Your task to perform on an android device: toggle improve location accuracy Image 0: 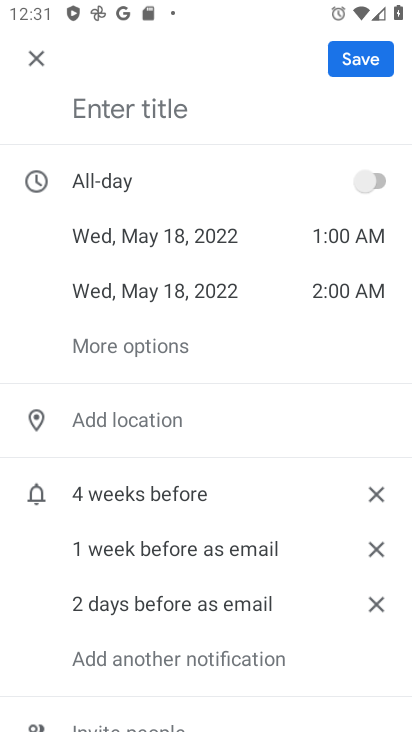
Step 0: press back button
Your task to perform on an android device: toggle improve location accuracy Image 1: 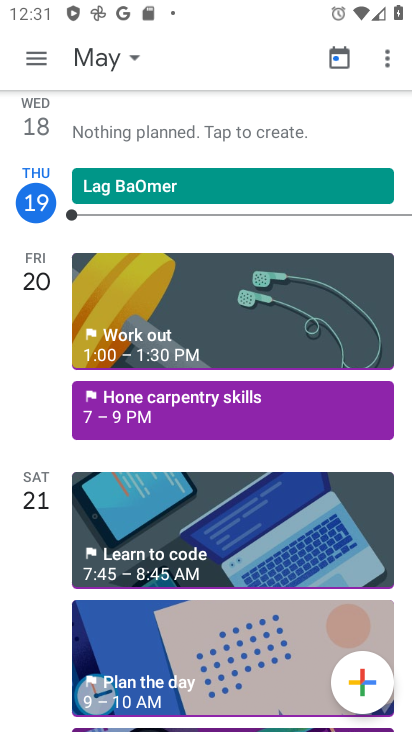
Step 1: press home button
Your task to perform on an android device: toggle improve location accuracy Image 2: 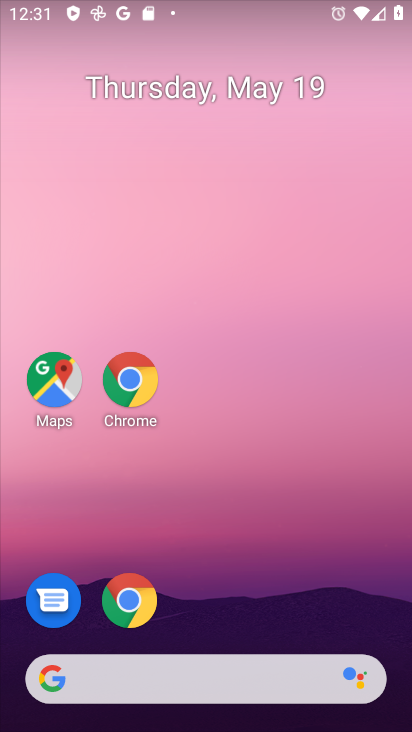
Step 2: drag from (264, 620) to (111, 29)
Your task to perform on an android device: toggle improve location accuracy Image 3: 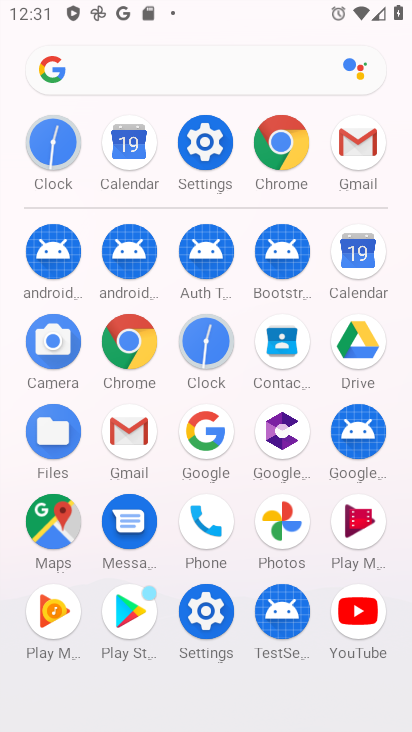
Step 3: click (195, 605)
Your task to perform on an android device: toggle improve location accuracy Image 4: 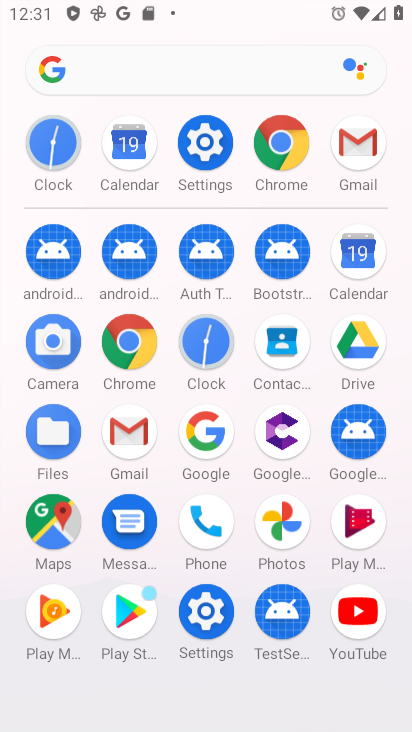
Step 4: click (217, 620)
Your task to perform on an android device: toggle improve location accuracy Image 5: 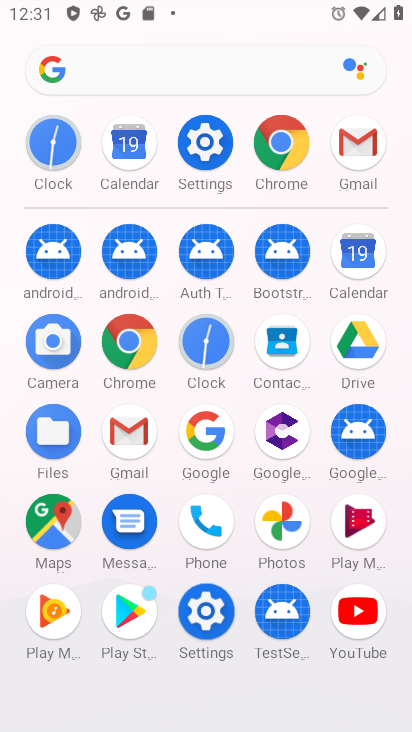
Step 5: click (217, 620)
Your task to perform on an android device: toggle improve location accuracy Image 6: 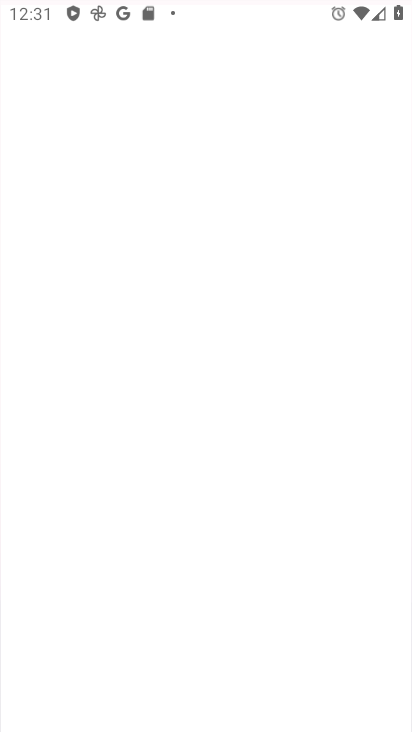
Step 6: click (217, 620)
Your task to perform on an android device: toggle improve location accuracy Image 7: 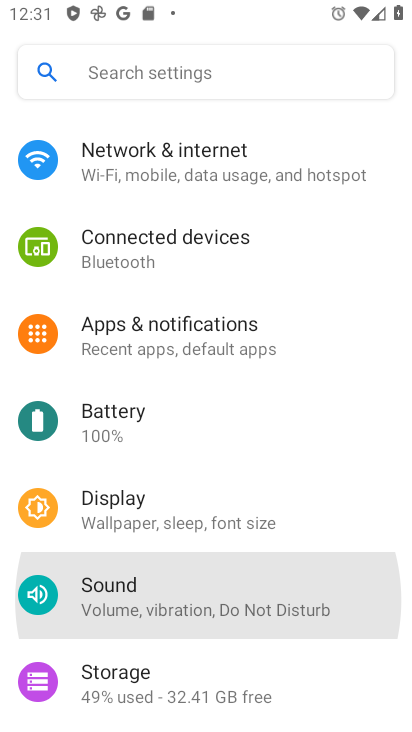
Step 7: click (218, 619)
Your task to perform on an android device: toggle improve location accuracy Image 8: 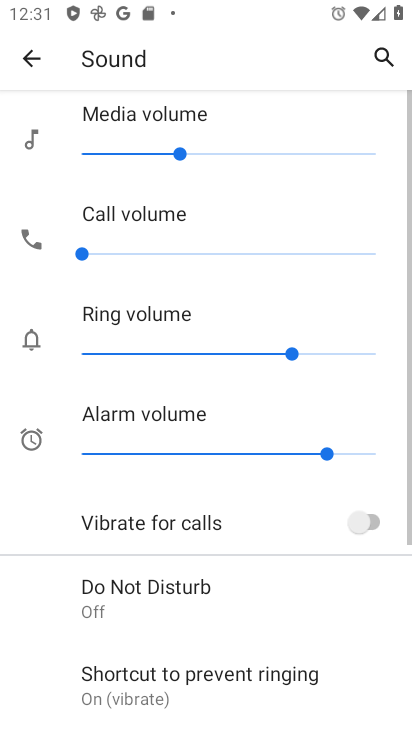
Step 8: click (36, 57)
Your task to perform on an android device: toggle improve location accuracy Image 9: 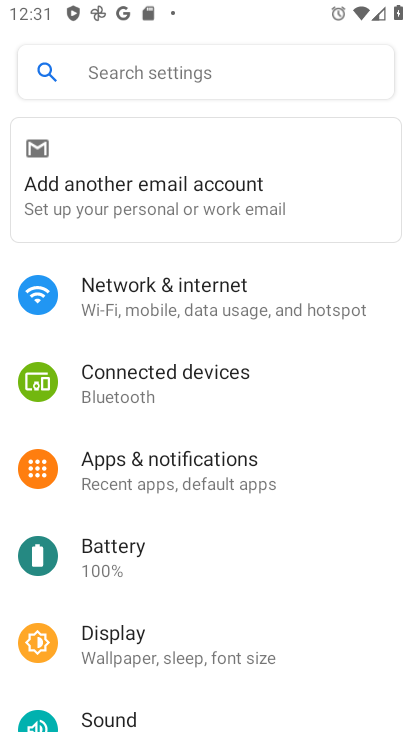
Step 9: drag from (157, 524) to (85, 222)
Your task to perform on an android device: toggle improve location accuracy Image 10: 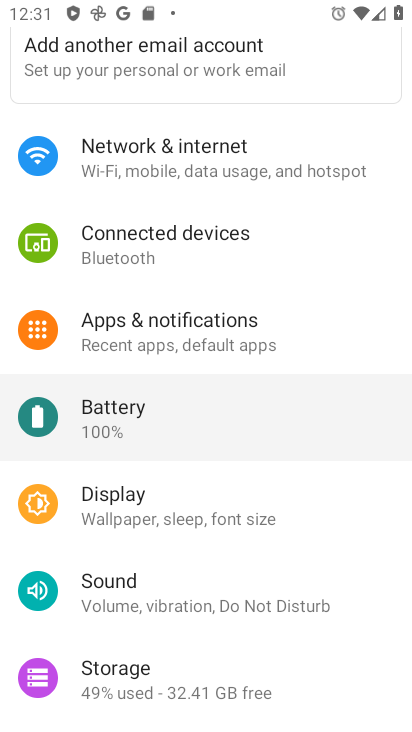
Step 10: drag from (160, 589) to (105, 245)
Your task to perform on an android device: toggle improve location accuracy Image 11: 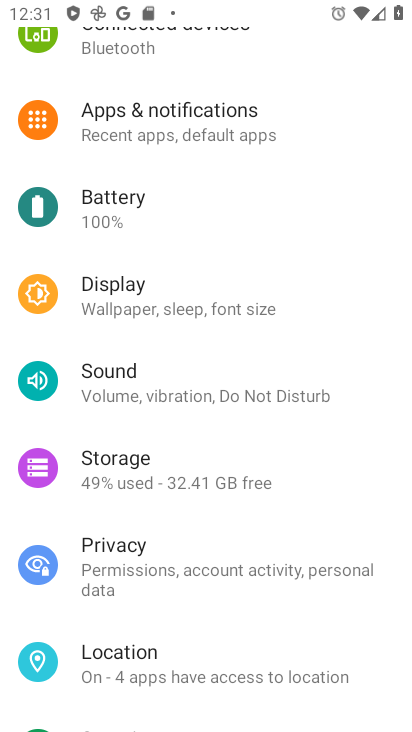
Step 11: drag from (154, 531) to (154, 191)
Your task to perform on an android device: toggle improve location accuracy Image 12: 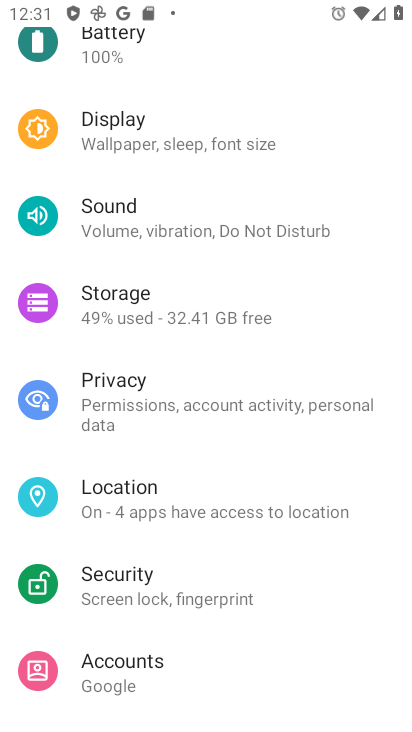
Step 12: click (135, 497)
Your task to perform on an android device: toggle improve location accuracy Image 13: 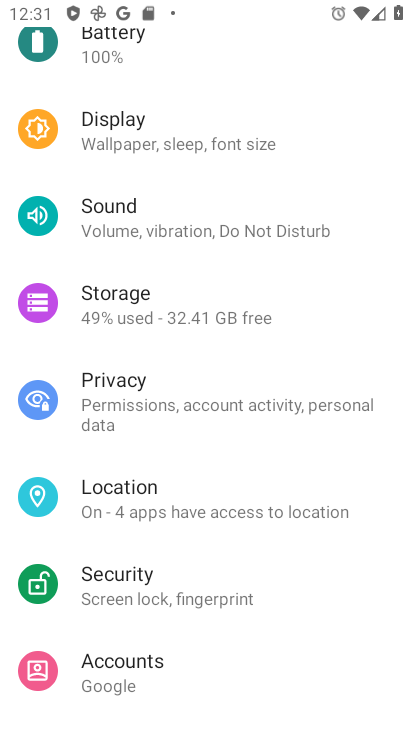
Step 13: click (135, 497)
Your task to perform on an android device: toggle improve location accuracy Image 14: 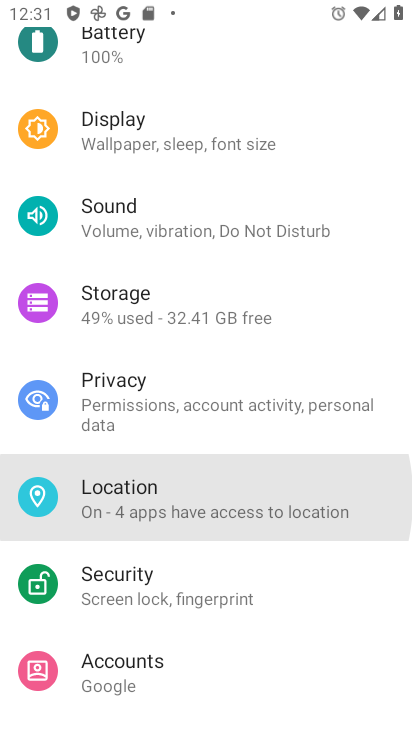
Step 14: click (135, 497)
Your task to perform on an android device: toggle improve location accuracy Image 15: 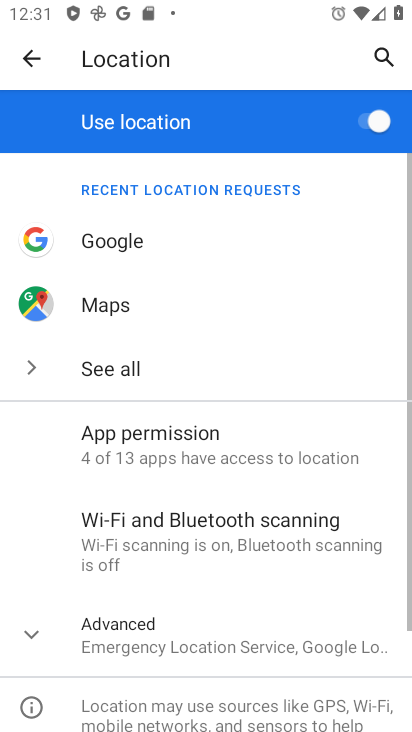
Step 15: click (121, 634)
Your task to perform on an android device: toggle improve location accuracy Image 16: 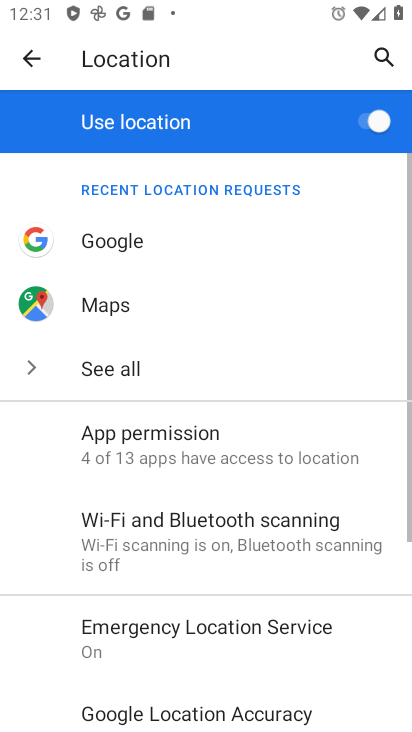
Step 16: drag from (224, 608) to (173, 242)
Your task to perform on an android device: toggle improve location accuracy Image 17: 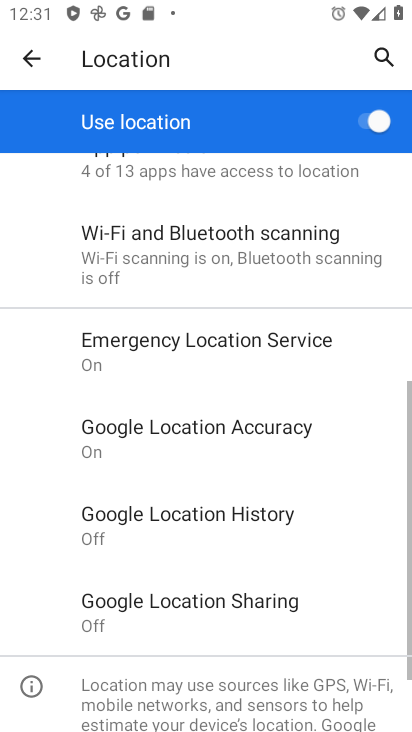
Step 17: drag from (193, 533) to (142, 214)
Your task to perform on an android device: toggle improve location accuracy Image 18: 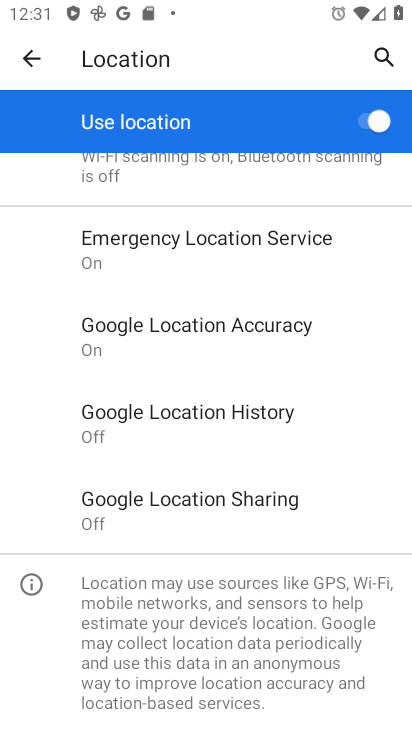
Step 18: click (168, 327)
Your task to perform on an android device: toggle improve location accuracy Image 19: 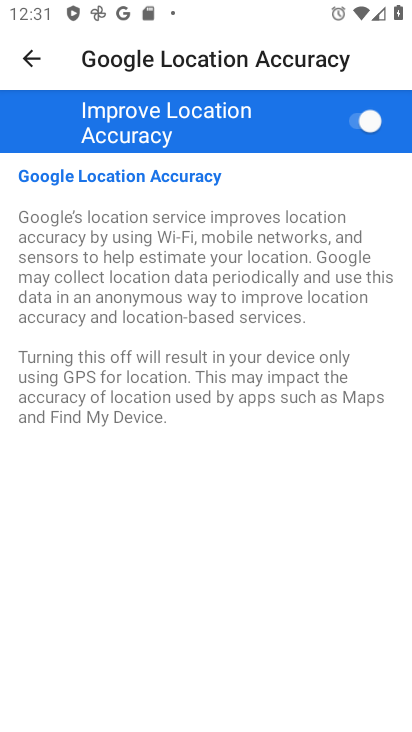
Step 19: click (359, 121)
Your task to perform on an android device: toggle improve location accuracy Image 20: 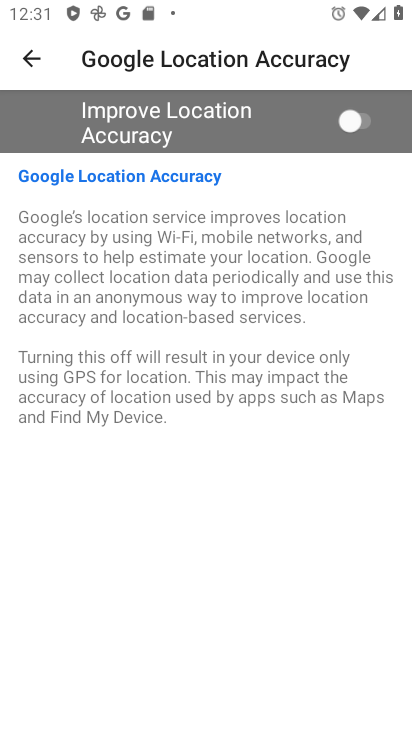
Step 20: task complete